Your task to perform on an android device: open app "Facebook Messenger" (install if not already installed), go to login, and select forgot password Image 0: 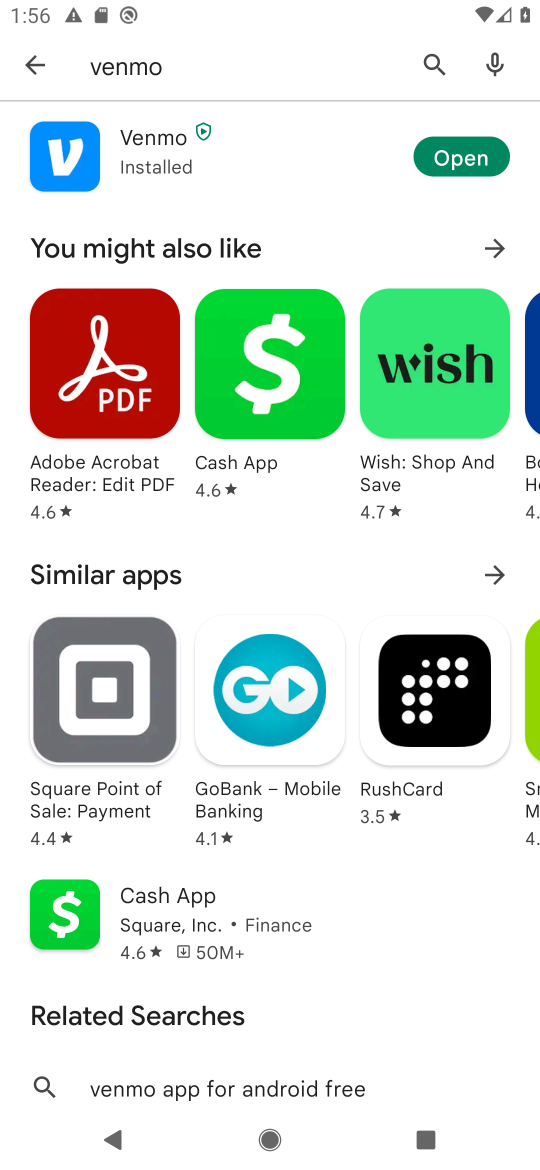
Step 0: click (24, 65)
Your task to perform on an android device: open app "Facebook Messenger" (install if not already installed), go to login, and select forgot password Image 1: 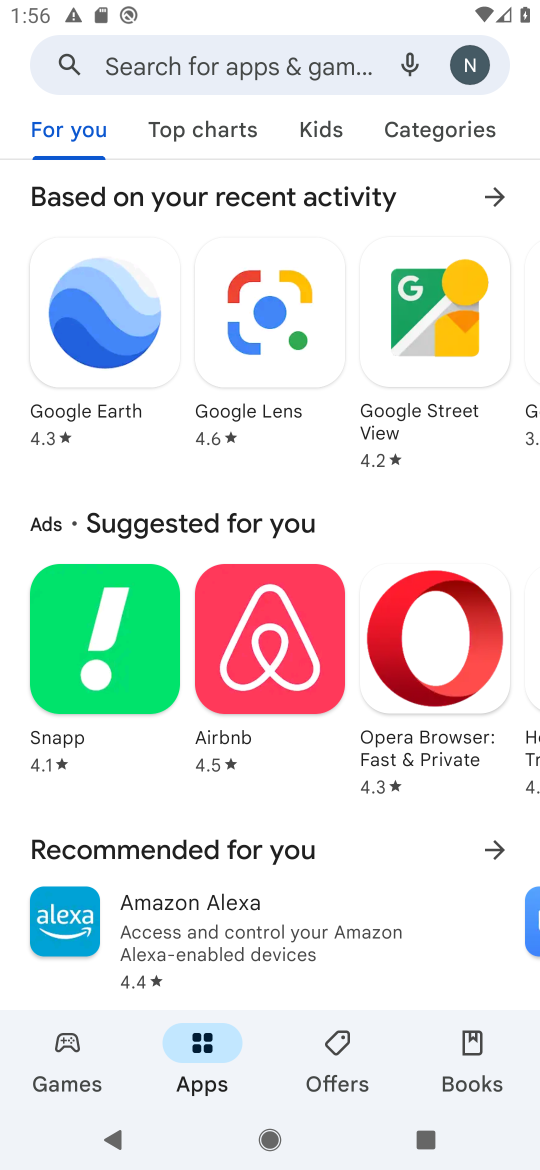
Step 1: click (187, 64)
Your task to perform on an android device: open app "Facebook Messenger" (install if not already installed), go to login, and select forgot password Image 2: 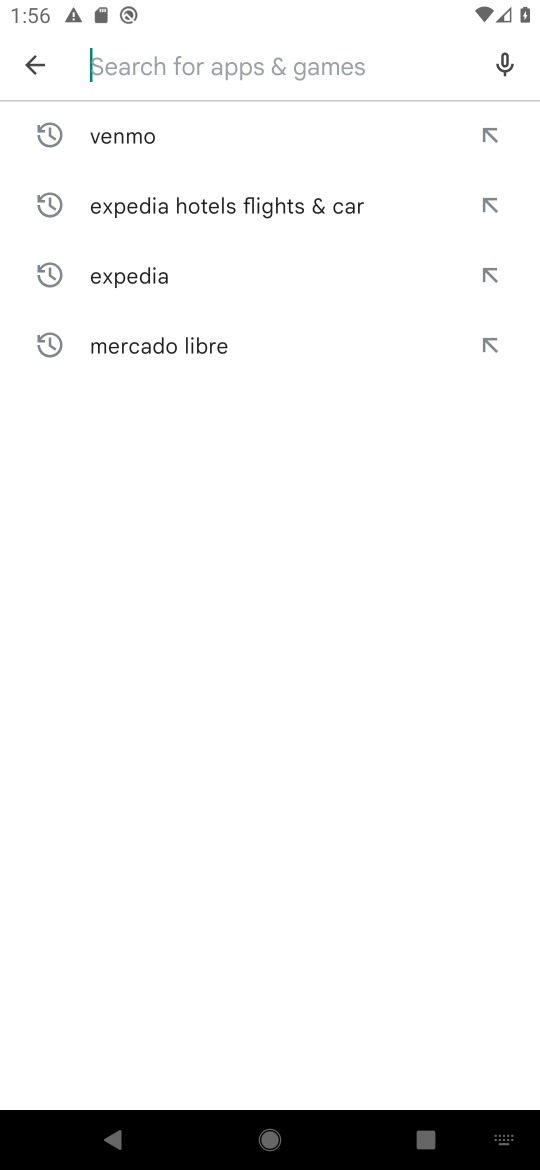
Step 2: type "Facebook Messenger"
Your task to perform on an android device: open app "Facebook Messenger" (install if not already installed), go to login, and select forgot password Image 3: 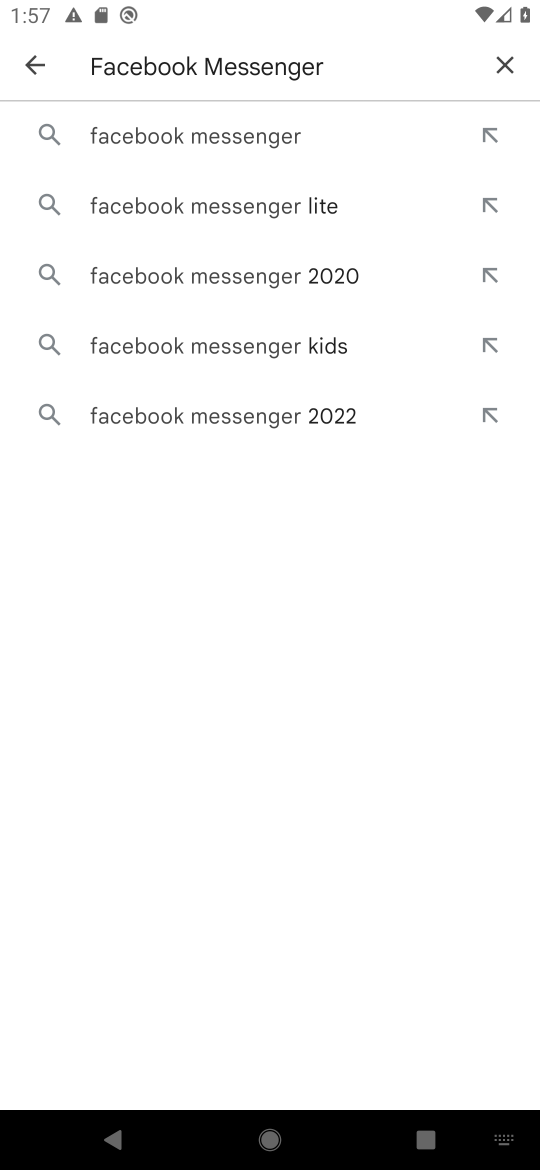
Step 3: click (248, 124)
Your task to perform on an android device: open app "Facebook Messenger" (install if not already installed), go to login, and select forgot password Image 4: 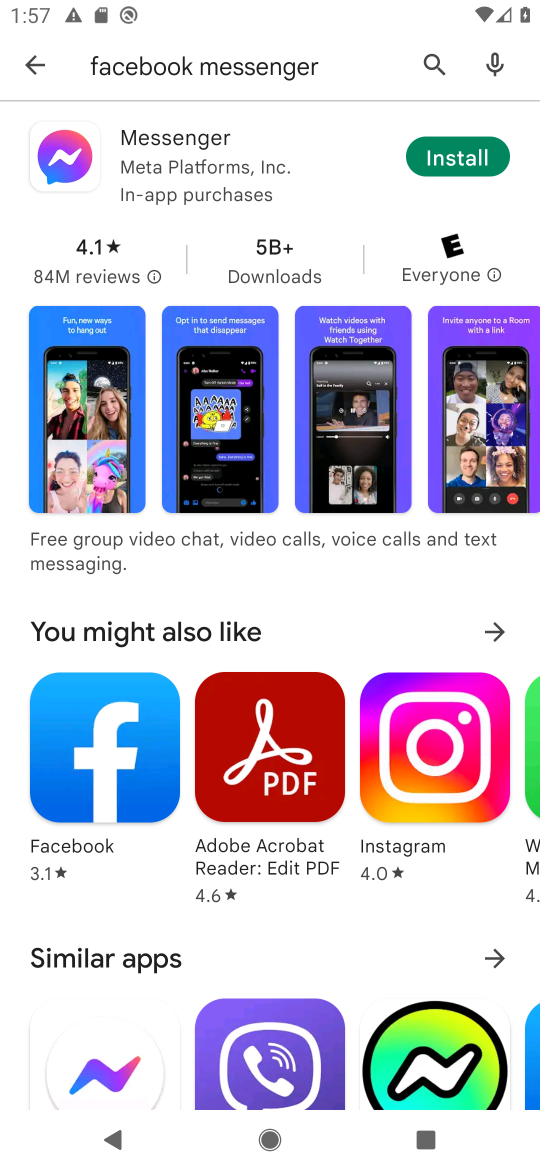
Step 4: click (463, 157)
Your task to perform on an android device: open app "Facebook Messenger" (install if not already installed), go to login, and select forgot password Image 5: 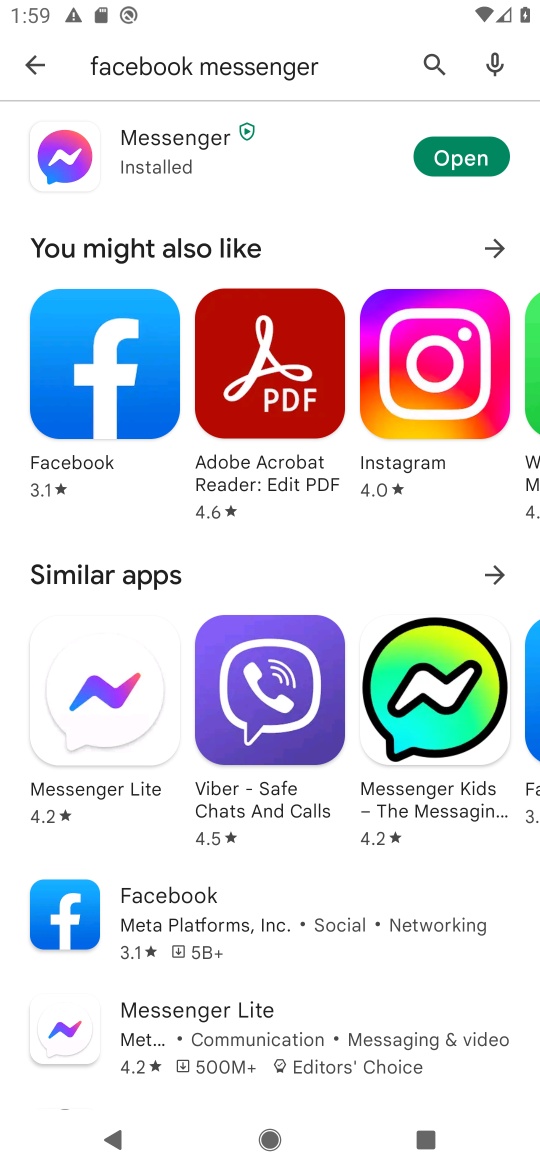
Step 5: click (449, 150)
Your task to perform on an android device: open app "Facebook Messenger" (install if not already installed), go to login, and select forgot password Image 6: 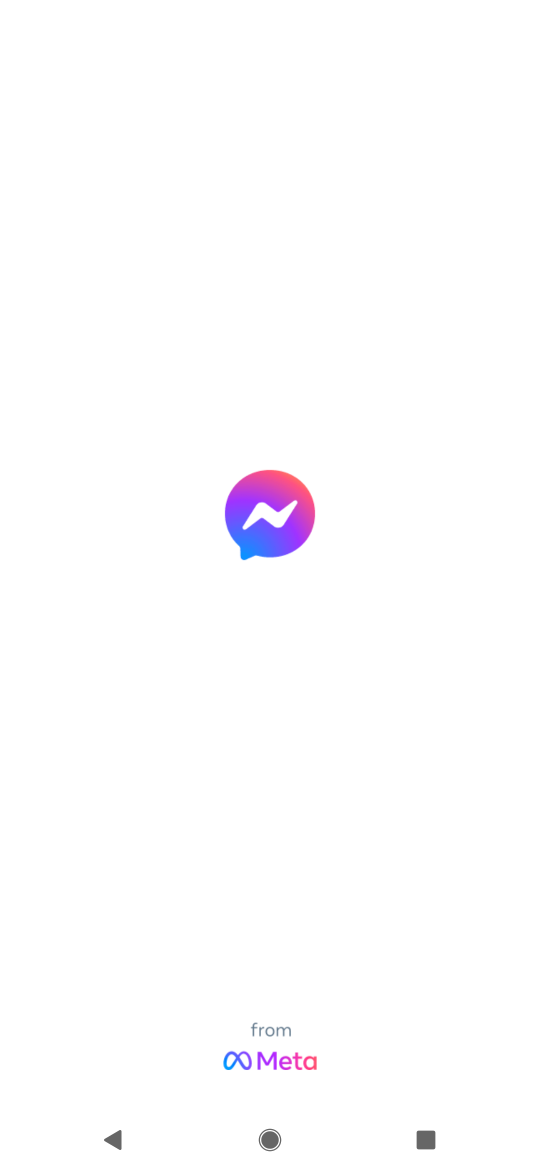
Step 6: task complete